Your task to perform on an android device: change your default location settings in chrome Image 0: 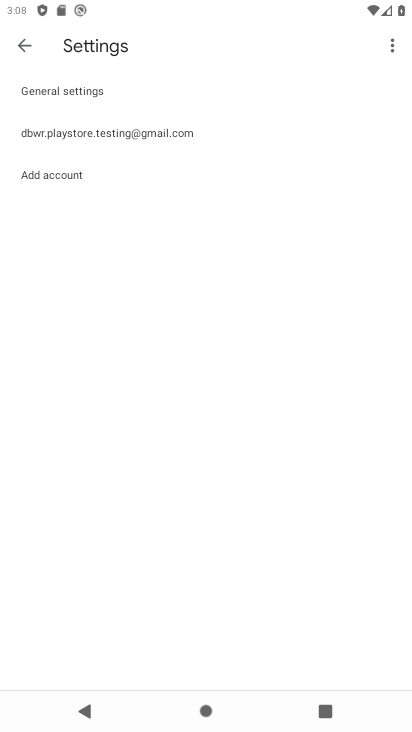
Step 0: press home button
Your task to perform on an android device: change your default location settings in chrome Image 1: 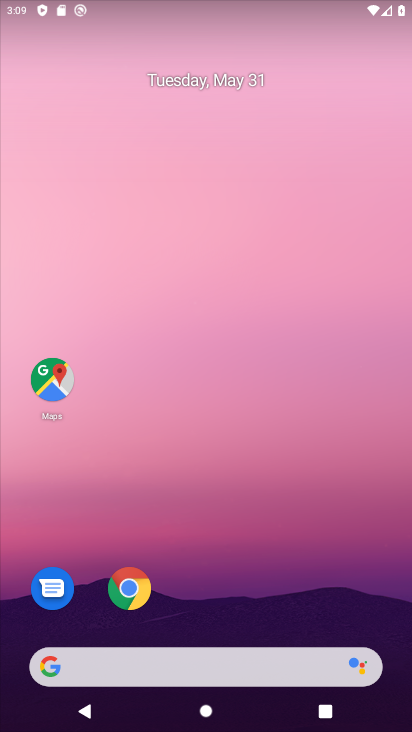
Step 1: click (132, 594)
Your task to perform on an android device: change your default location settings in chrome Image 2: 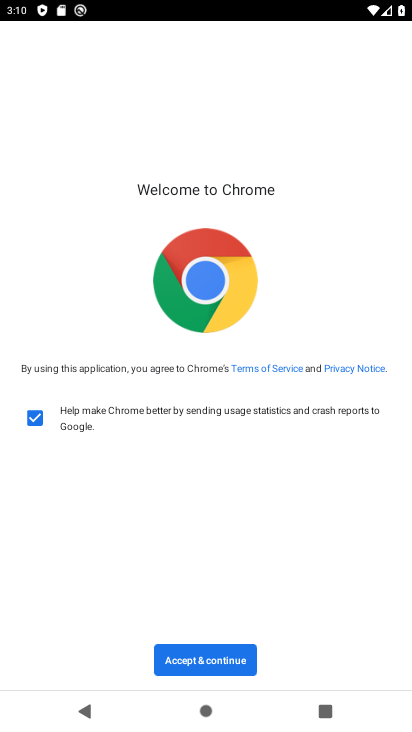
Step 2: click (185, 662)
Your task to perform on an android device: change your default location settings in chrome Image 3: 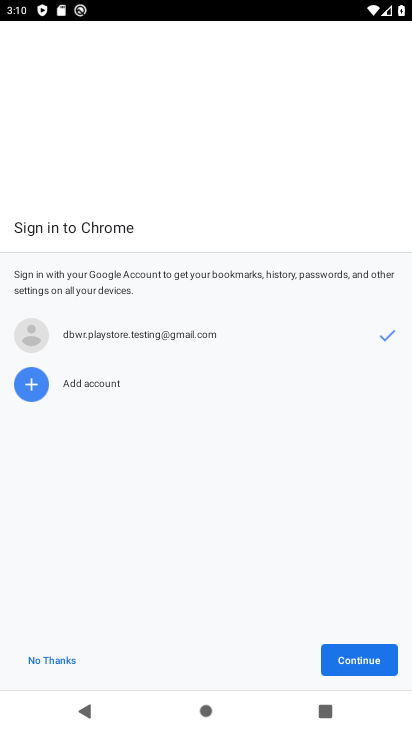
Step 3: click (349, 656)
Your task to perform on an android device: change your default location settings in chrome Image 4: 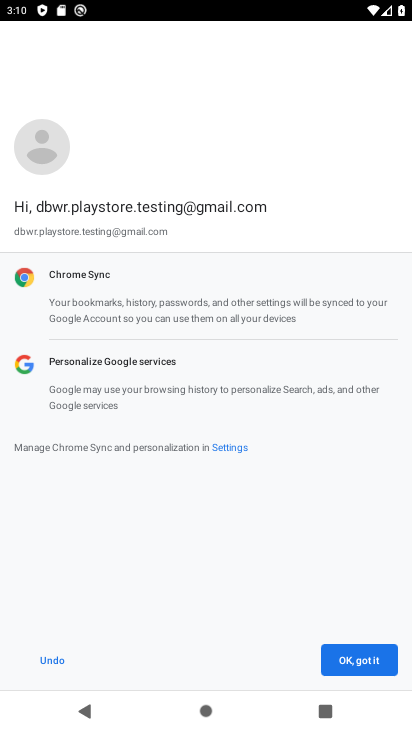
Step 4: click (349, 656)
Your task to perform on an android device: change your default location settings in chrome Image 5: 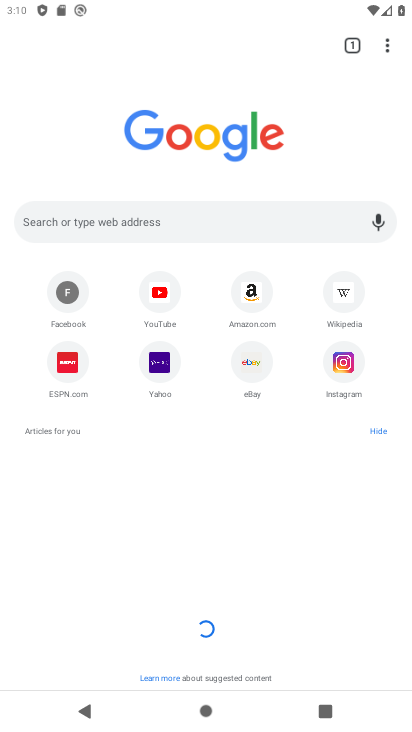
Step 5: click (387, 46)
Your task to perform on an android device: change your default location settings in chrome Image 6: 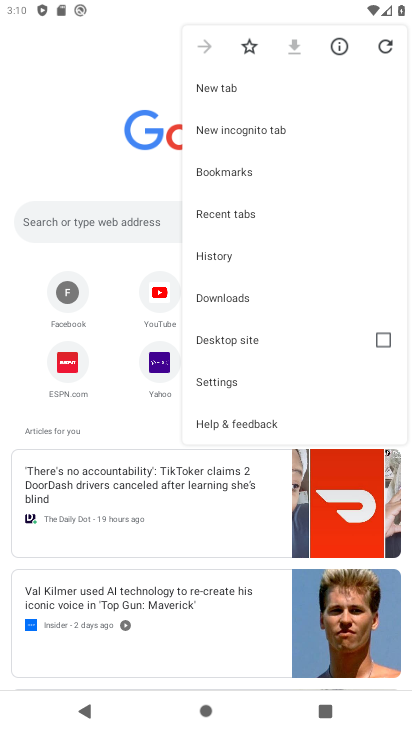
Step 6: click (275, 375)
Your task to perform on an android device: change your default location settings in chrome Image 7: 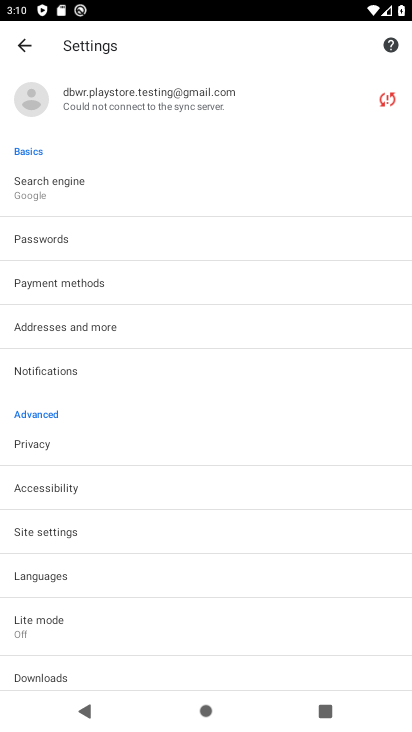
Step 7: click (160, 533)
Your task to perform on an android device: change your default location settings in chrome Image 8: 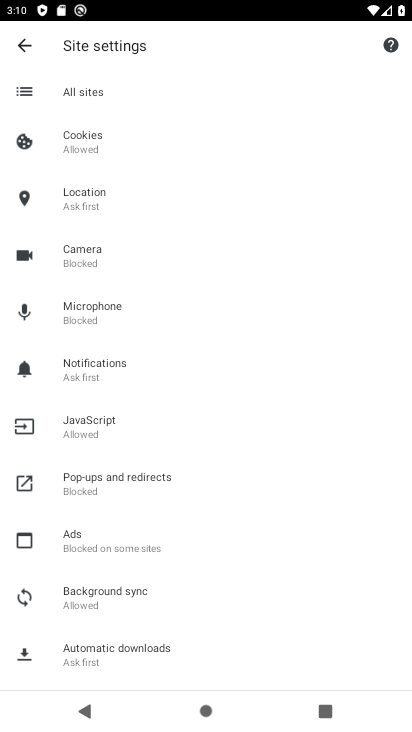
Step 8: click (159, 201)
Your task to perform on an android device: change your default location settings in chrome Image 9: 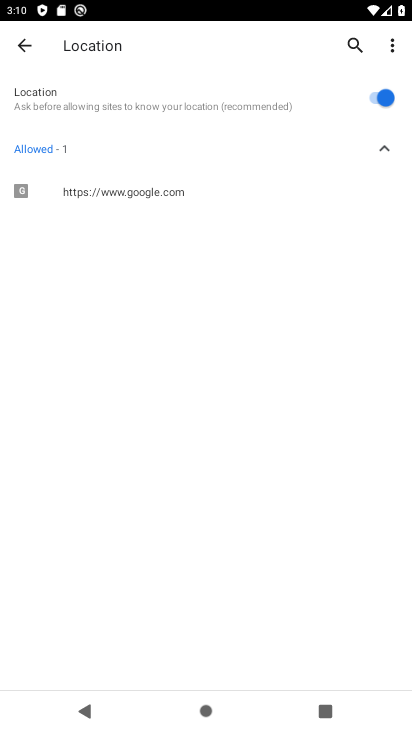
Step 9: task complete